Your task to perform on an android device: Open my contact list Image 0: 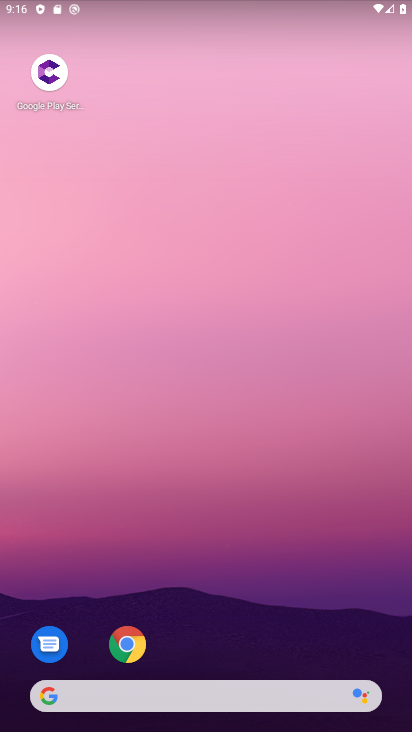
Step 0: drag from (386, 652) to (332, 6)
Your task to perform on an android device: Open my contact list Image 1: 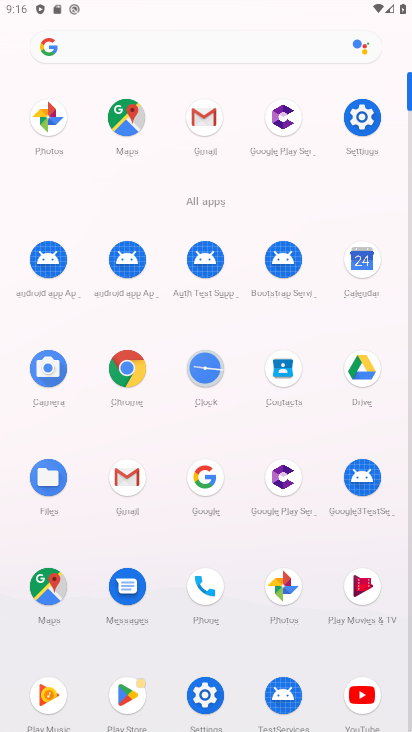
Step 1: click (281, 369)
Your task to perform on an android device: Open my contact list Image 2: 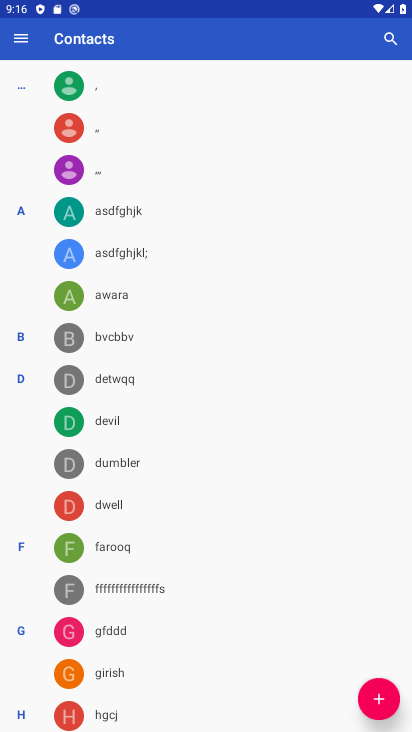
Step 2: task complete